Your task to perform on an android device: allow cookies in the chrome app Image 0: 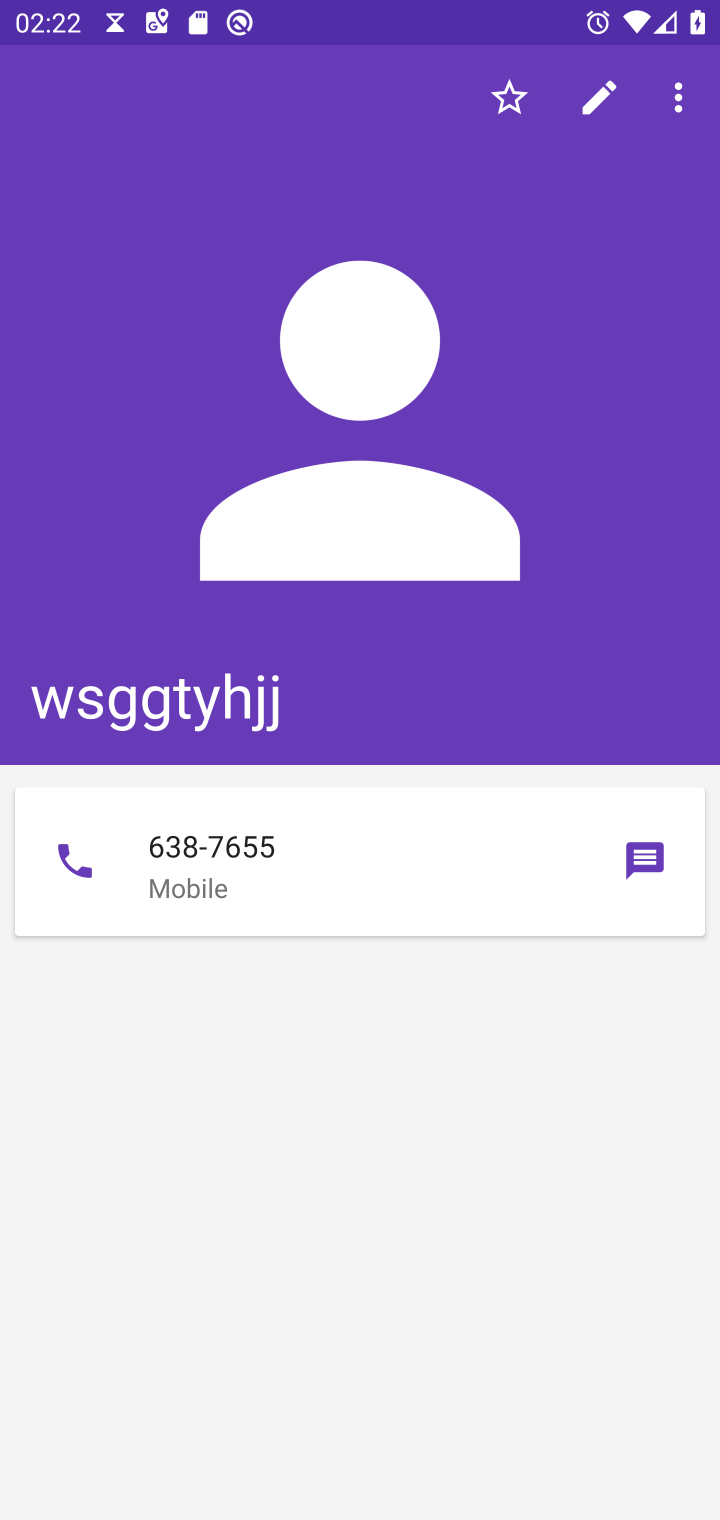
Step 0: press home button
Your task to perform on an android device: allow cookies in the chrome app Image 1: 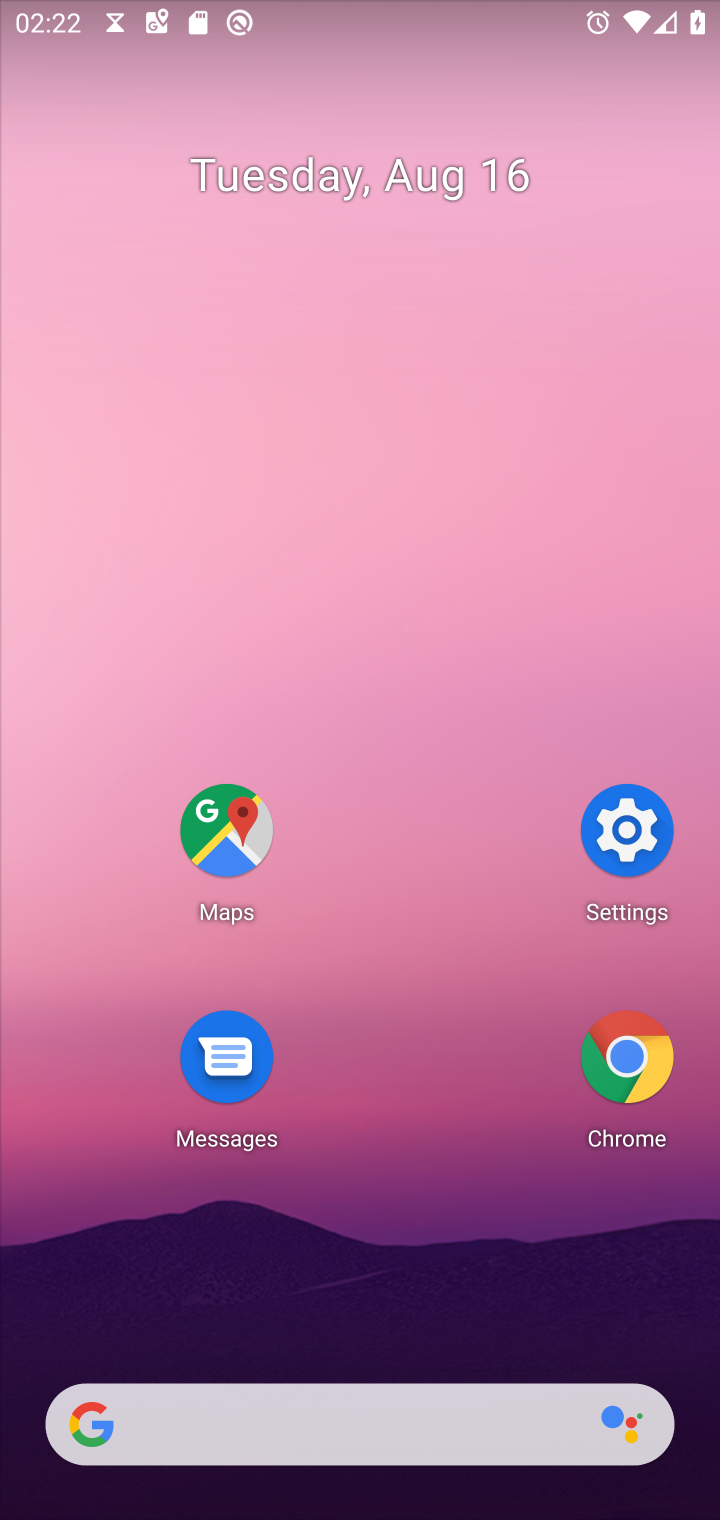
Step 1: click (631, 1062)
Your task to perform on an android device: allow cookies in the chrome app Image 2: 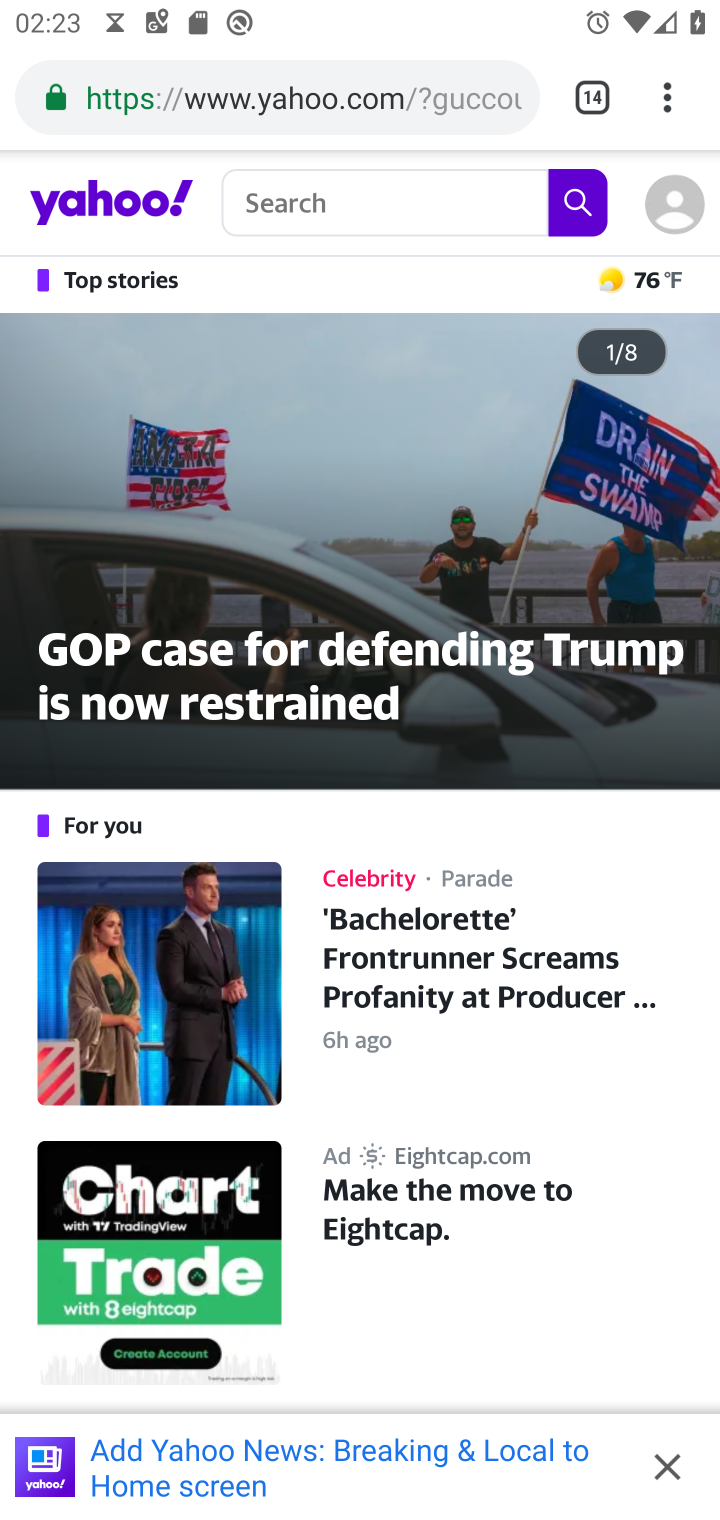
Step 2: drag from (654, 100) to (410, 1195)
Your task to perform on an android device: allow cookies in the chrome app Image 3: 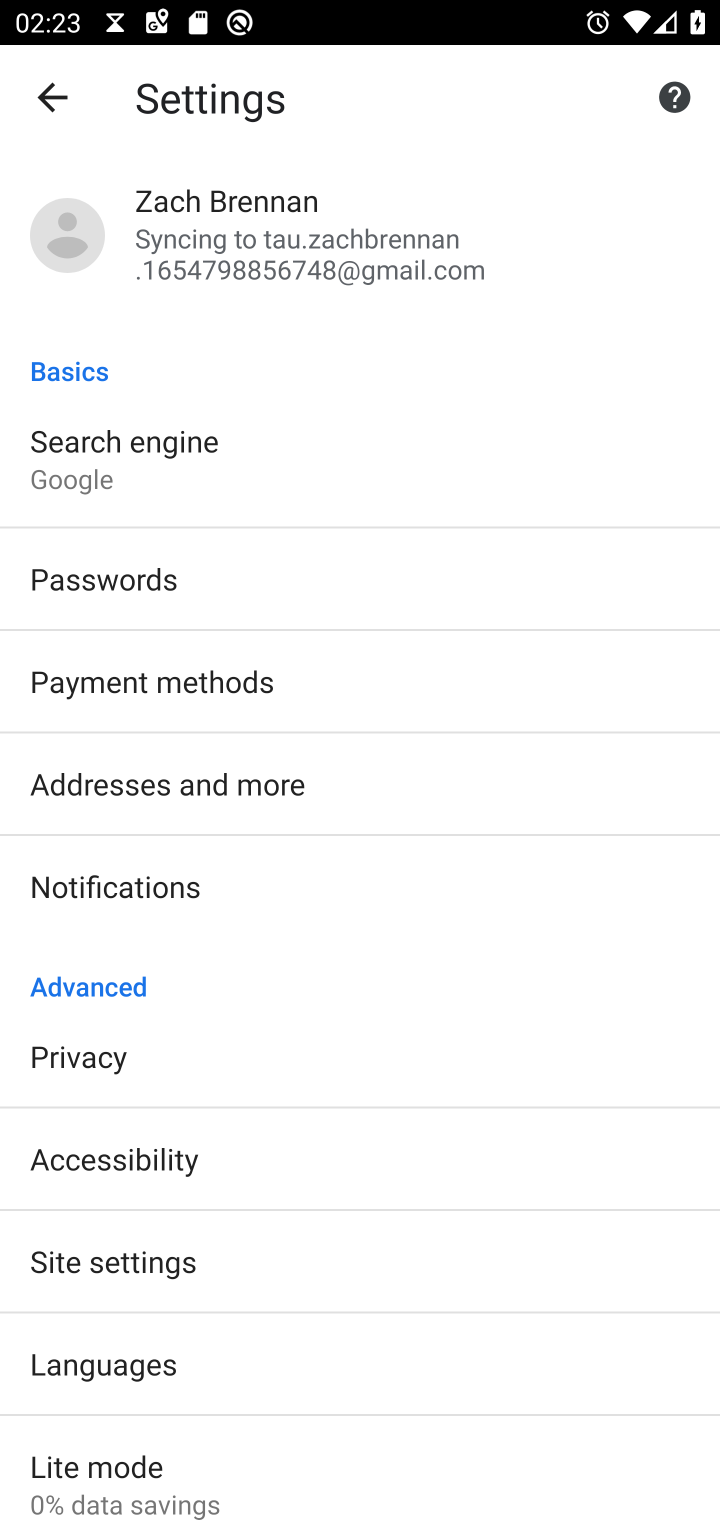
Step 3: click (180, 1268)
Your task to perform on an android device: allow cookies in the chrome app Image 4: 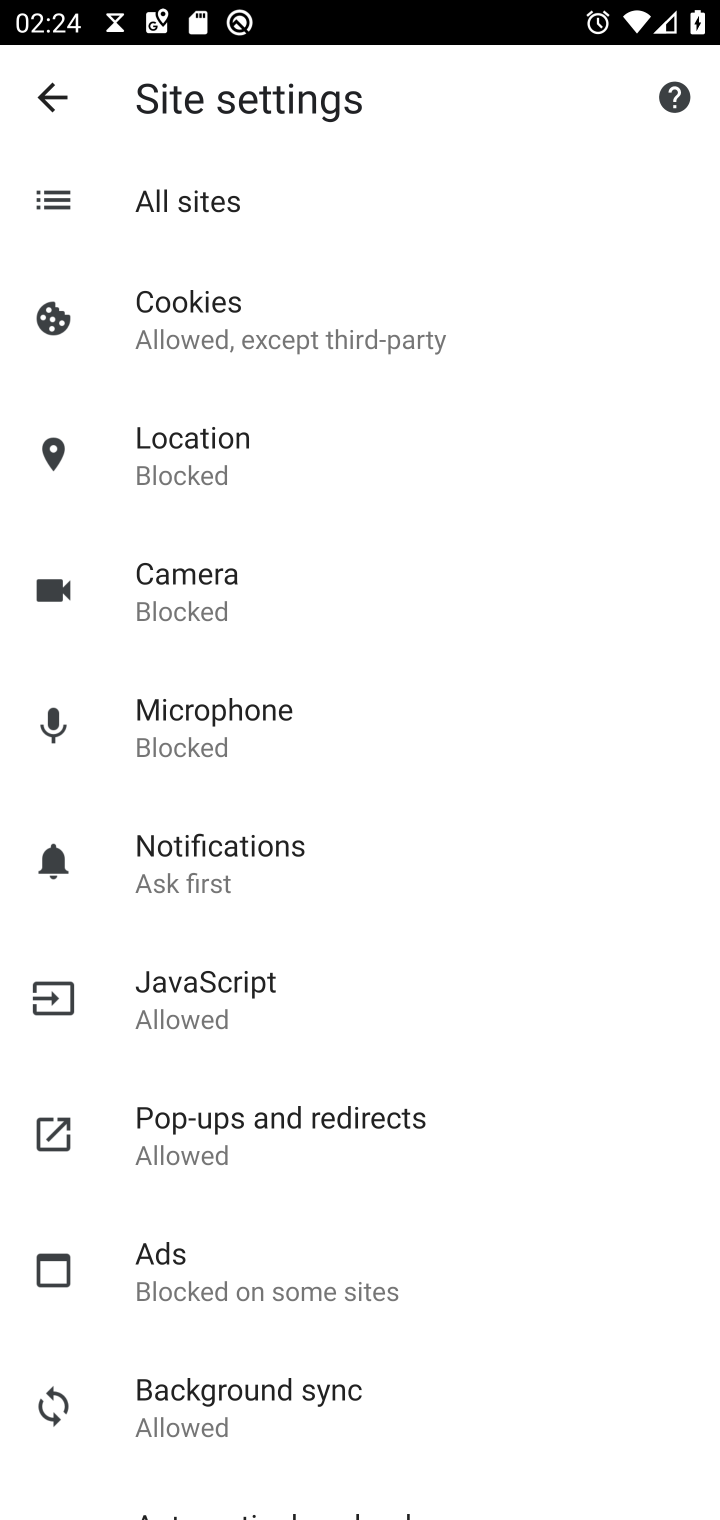
Step 4: click (264, 320)
Your task to perform on an android device: allow cookies in the chrome app Image 5: 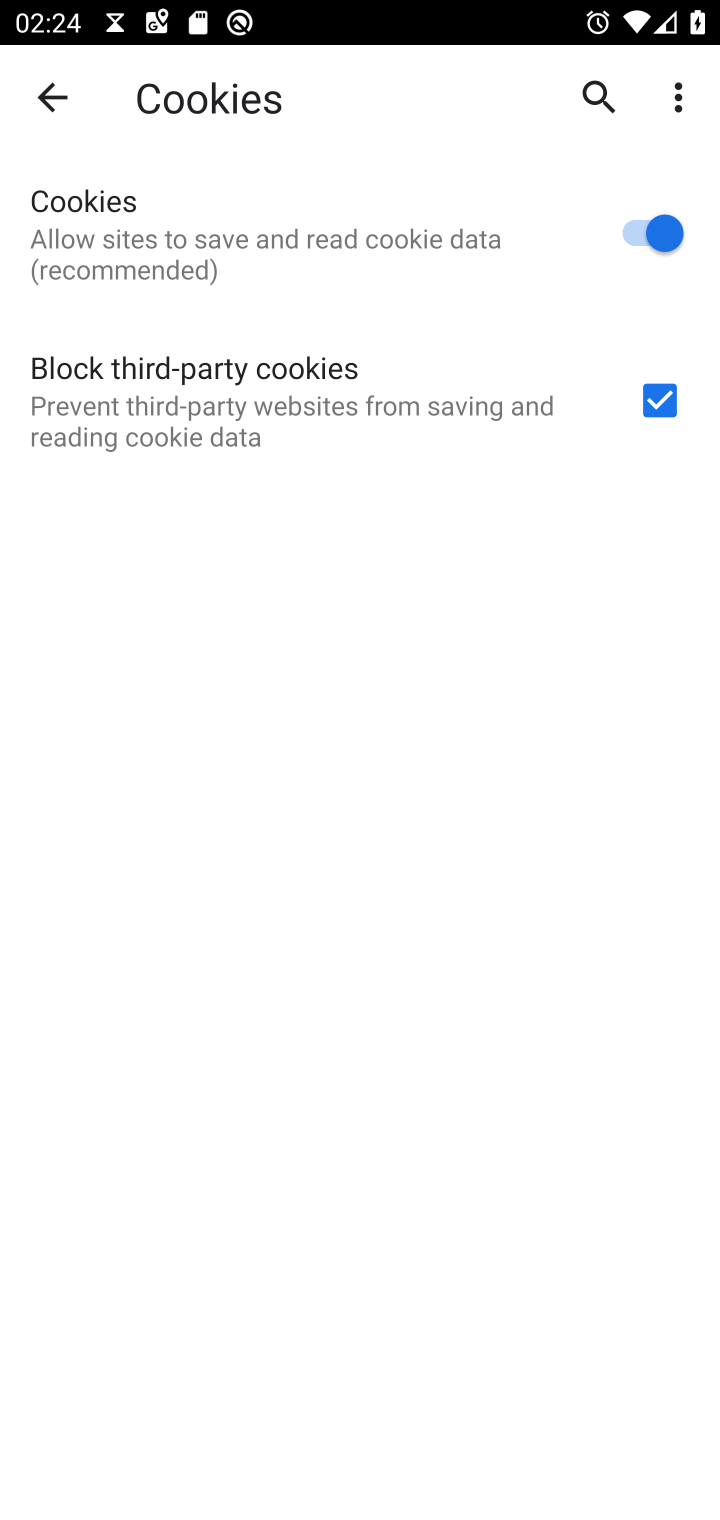
Step 5: task complete